Your task to perform on an android device: Search for seafood restaurants on Google Maps Image 0: 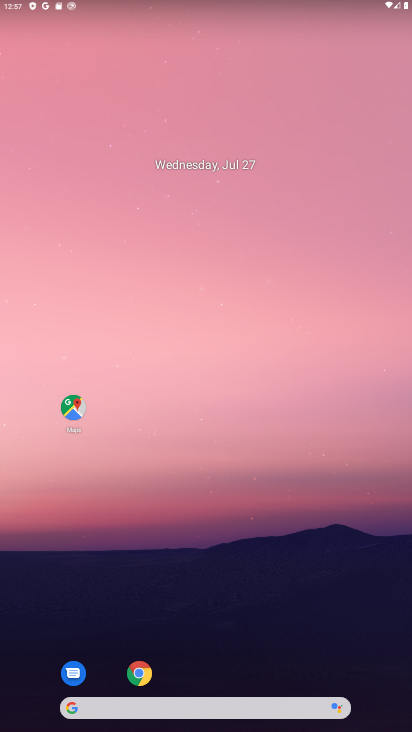
Step 0: press home button
Your task to perform on an android device: Search for seafood restaurants on Google Maps Image 1: 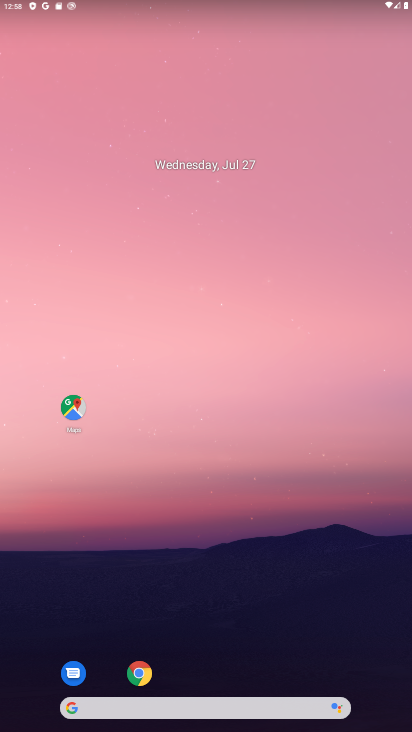
Step 1: click (77, 406)
Your task to perform on an android device: Search for seafood restaurants on Google Maps Image 2: 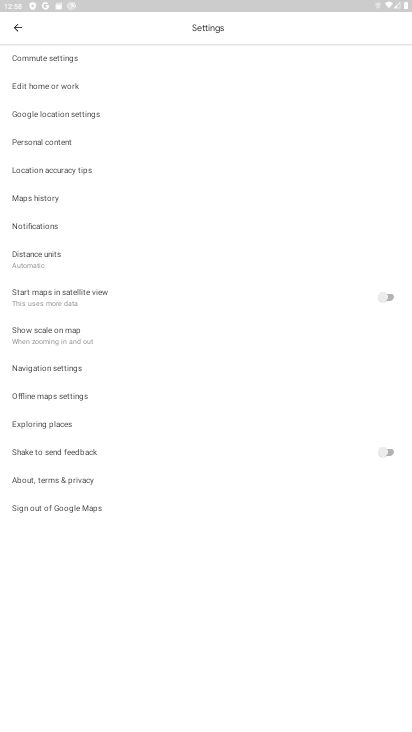
Step 2: click (13, 32)
Your task to perform on an android device: Search for seafood restaurants on Google Maps Image 3: 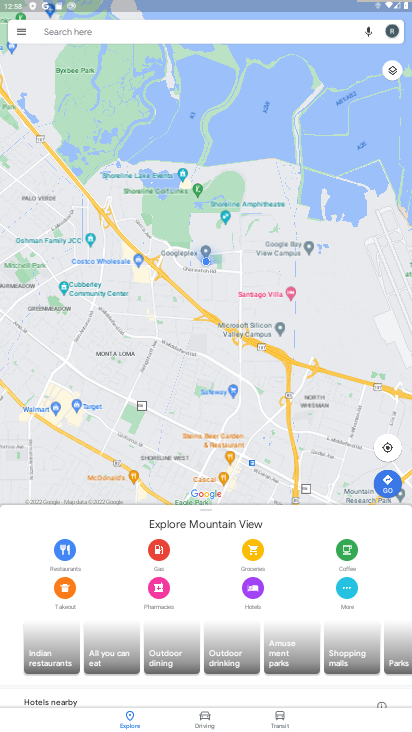
Step 3: click (18, 26)
Your task to perform on an android device: Search for seafood restaurants on Google Maps Image 4: 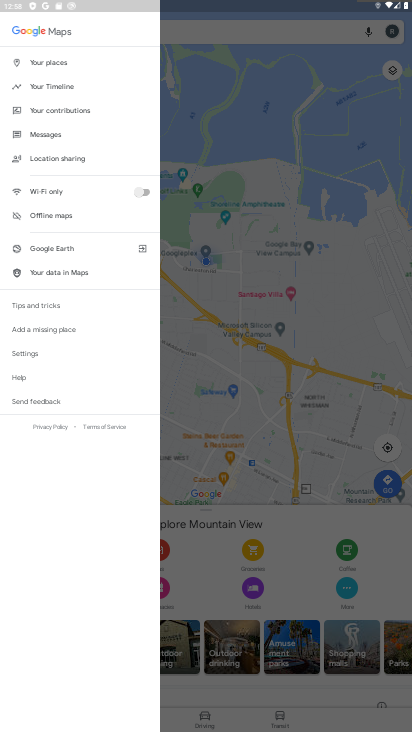
Step 4: click (192, 26)
Your task to perform on an android device: Search for seafood restaurants on Google Maps Image 5: 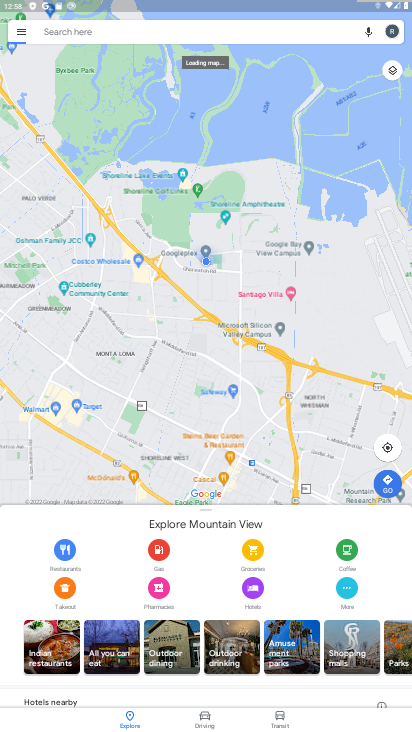
Step 5: click (114, 25)
Your task to perform on an android device: Search for seafood restaurants on Google Maps Image 6: 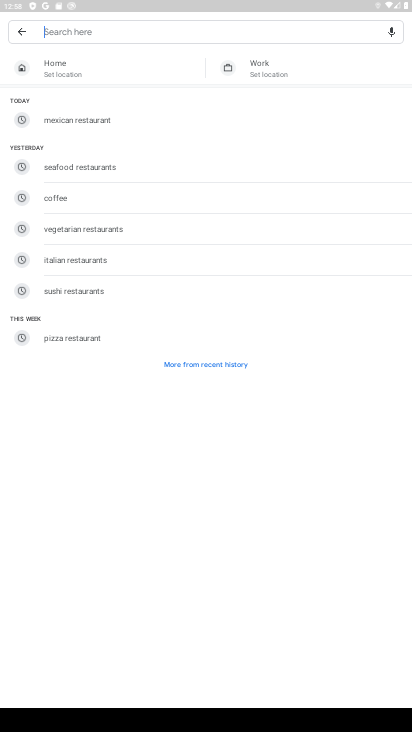
Step 6: click (91, 173)
Your task to perform on an android device: Search for seafood restaurants on Google Maps Image 7: 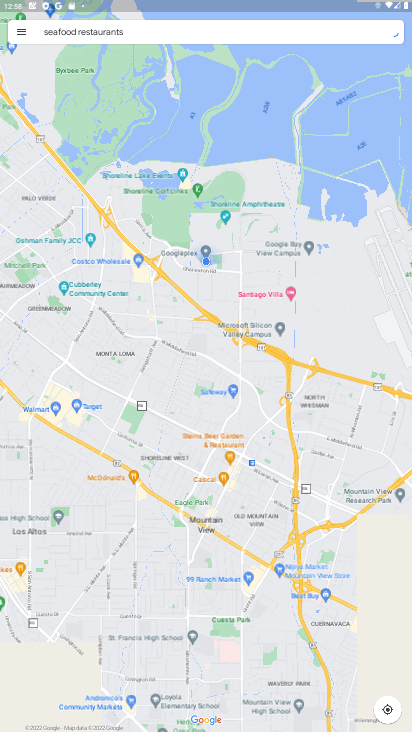
Step 7: click (139, 33)
Your task to perform on an android device: Search for seafood restaurants on Google Maps Image 8: 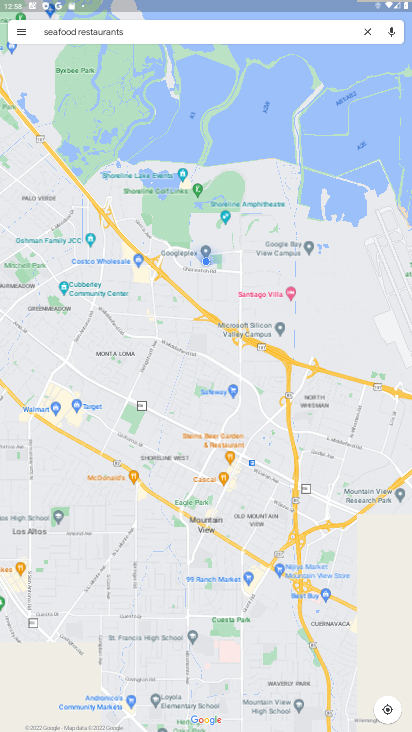
Step 8: click (133, 37)
Your task to perform on an android device: Search for seafood restaurants on Google Maps Image 9: 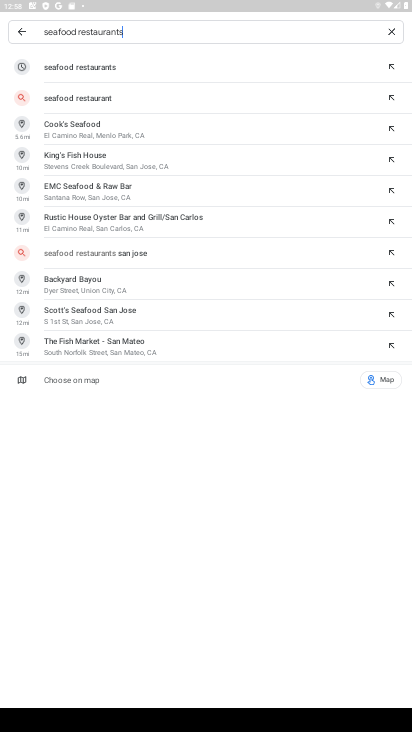
Step 9: click (102, 67)
Your task to perform on an android device: Search for seafood restaurants on Google Maps Image 10: 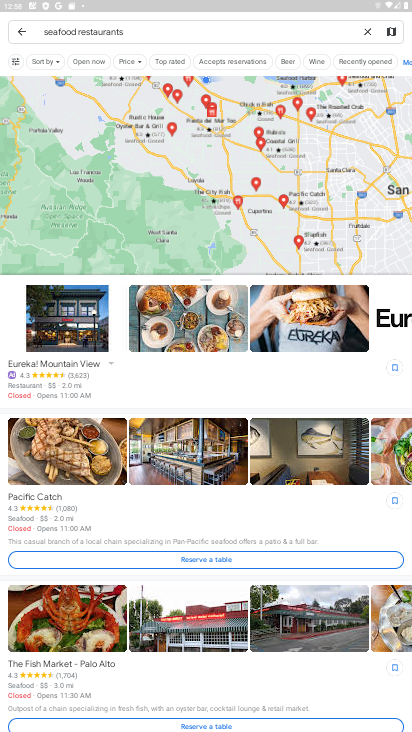
Step 10: task complete